Your task to perform on an android device: Open the phone app and click the voicemail tab. Image 0: 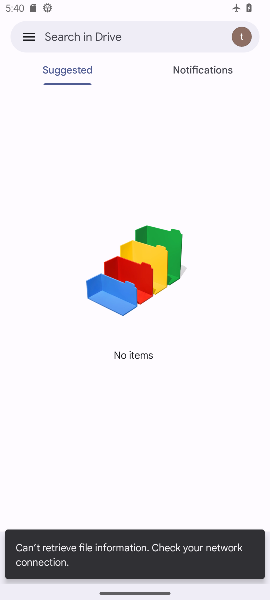
Step 0: press home button
Your task to perform on an android device: Open the phone app and click the voicemail tab. Image 1: 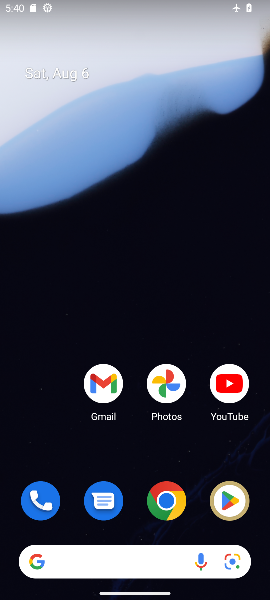
Step 1: click (47, 501)
Your task to perform on an android device: Open the phone app and click the voicemail tab. Image 2: 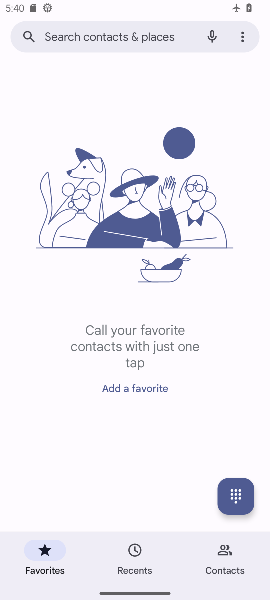
Step 2: click (242, 39)
Your task to perform on an android device: Open the phone app and click the voicemail tab. Image 3: 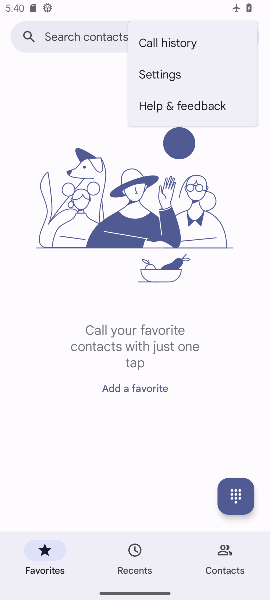
Step 3: task complete